Your task to perform on an android device: What is the recent news? Image 0: 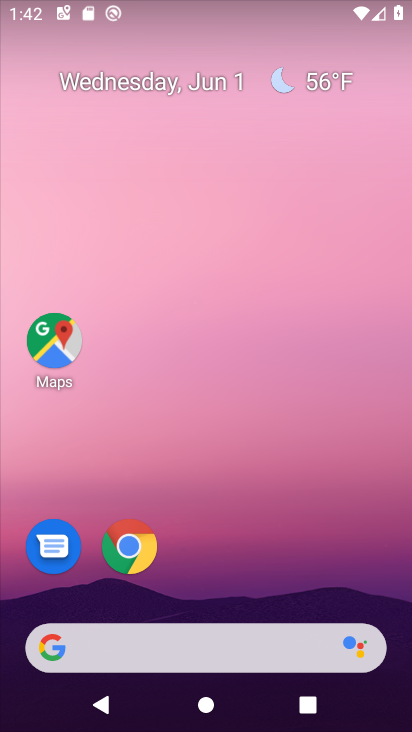
Step 0: click (144, 641)
Your task to perform on an android device: What is the recent news? Image 1: 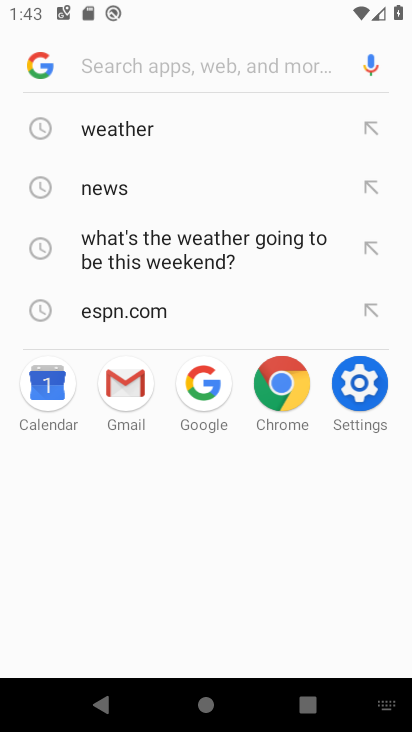
Step 1: click (121, 204)
Your task to perform on an android device: What is the recent news? Image 2: 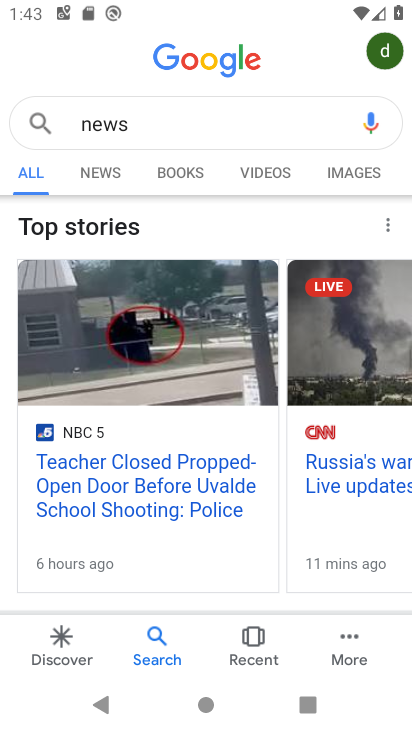
Step 2: task complete